Your task to perform on an android device: Open Wikipedia Image 0: 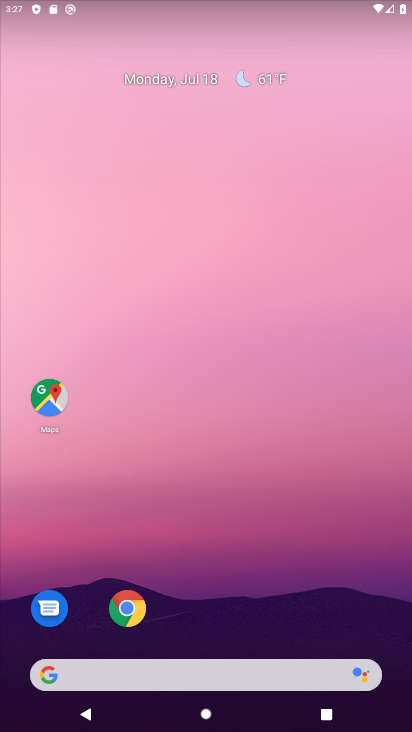
Step 0: drag from (298, 540) to (271, 129)
Your task to perform on an android device: Open Wikipedia Image 1: 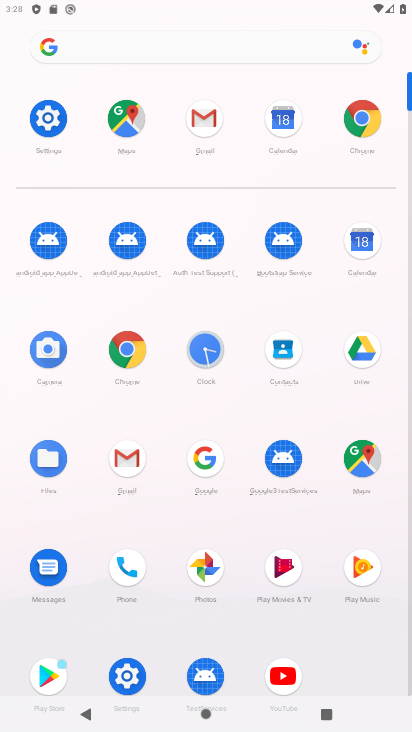
Step 1: click (369, 120)
Your task to perform on an android device: Open Wikipedia Image 2: 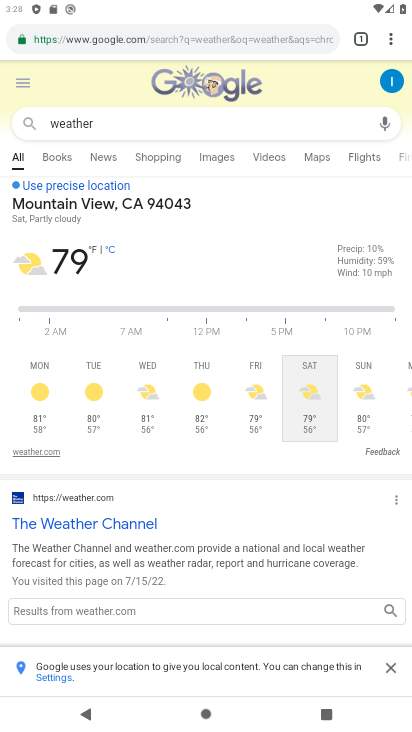
Step 2: click (138, 37)
Your task to perform on an android device: Open Wikipedia Image 3: 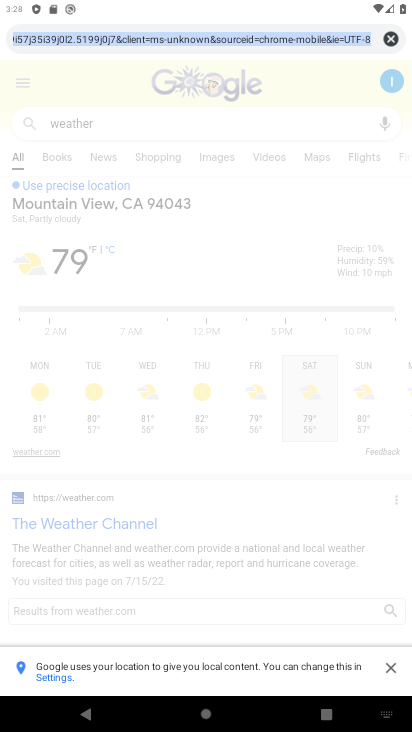
Step 3: type "wikipedia"
Your task to perform on an android device: Open Wikipedia Image 4: 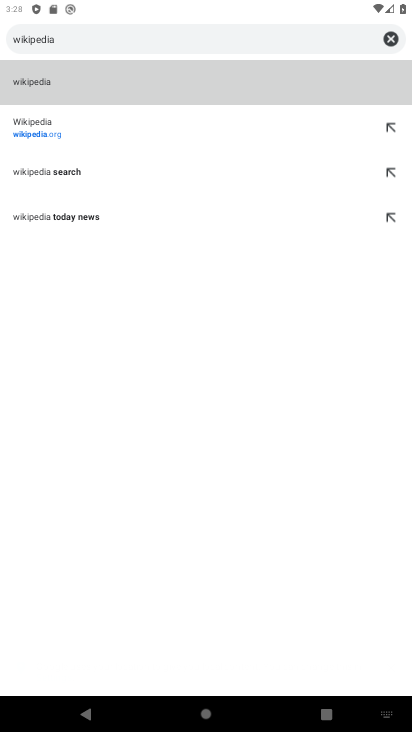
Step 4: click (41, 132)
Your task to perform on an android device: Open Wikipedia Image 5: 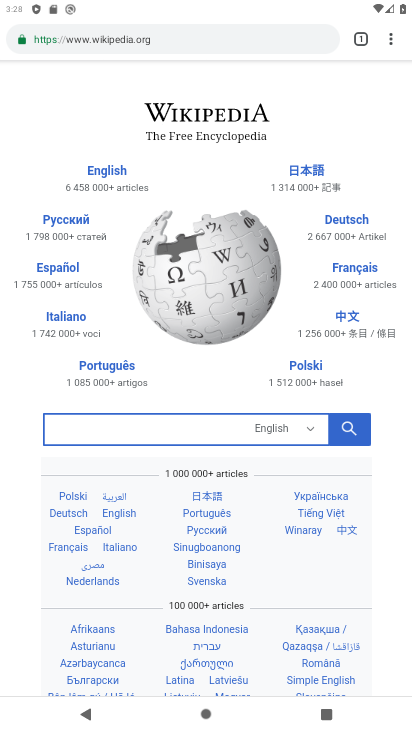
Step 5: task complete